Your task to perform on an android device: turn smart compose on in the gmail app Image 0: 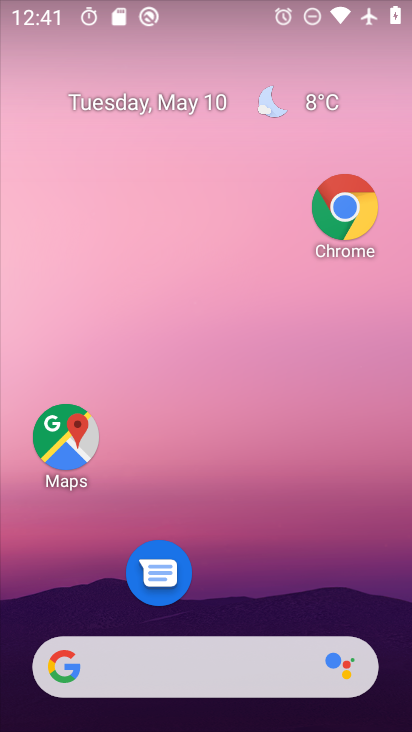
Step 0: drag from (317, 542) to (282, 34)
Your task to perform on an android device: turn smart compose on in the gmail app Image 1: 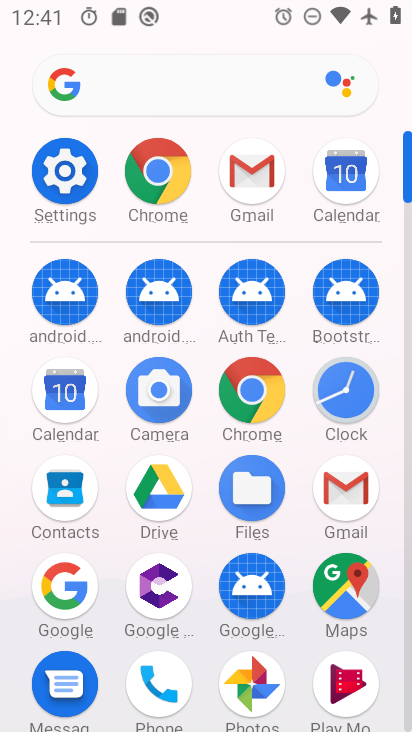
Step 1: click (260, 185)
Your task to perform on an android device: turn smart compose on in the gmail app Image 2: 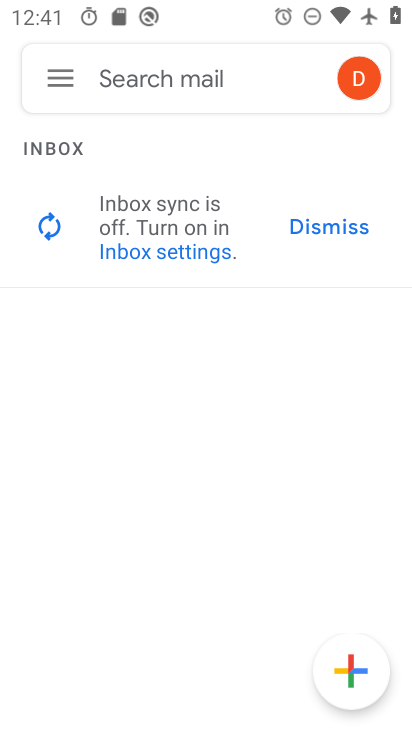
Step 2: click (58, 74)
Your task to perform on an android device: turn smart compose on in the gmail app Image 3: 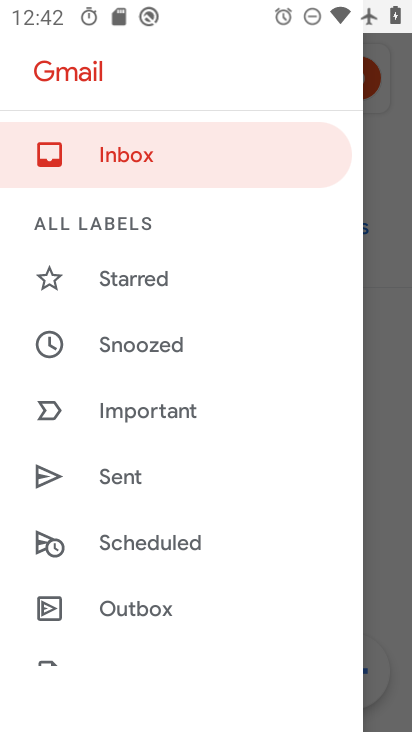
Step 3: drag from (202, 543) to (275, 128)
Your task to perform on an android device: turn smart compose on in the gmail app Image 4: 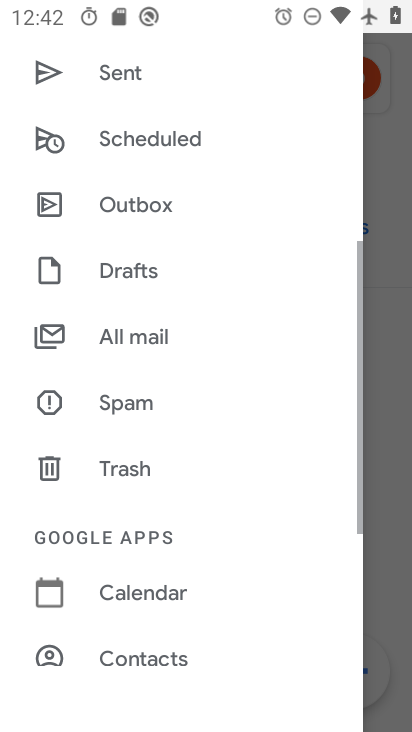
Step 4: drag from (164, 535) to (268, 178)
Your task to perform on an android device: turn smart compose on in the gmail app Image 5: 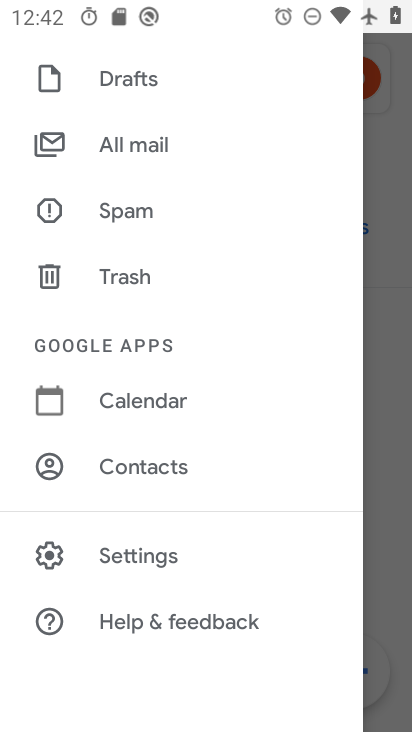
Step 5: click (127, 556)
Your task to perform on an android device: turn smart compose on in the gmail app Image 6: 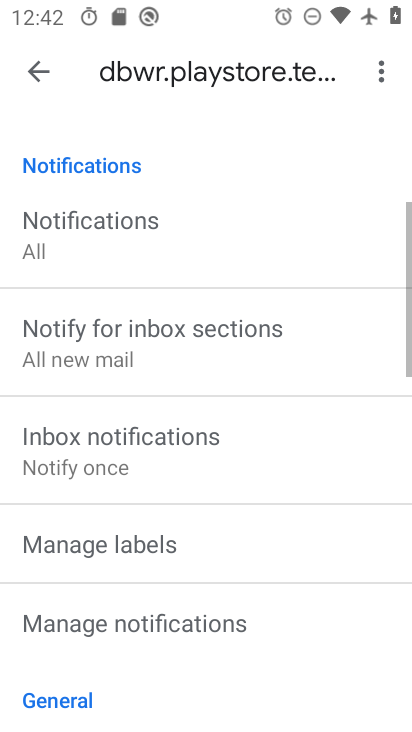
Step 6: task complete